Your task to perform on an android device: Go to Wikipedia Image 0: 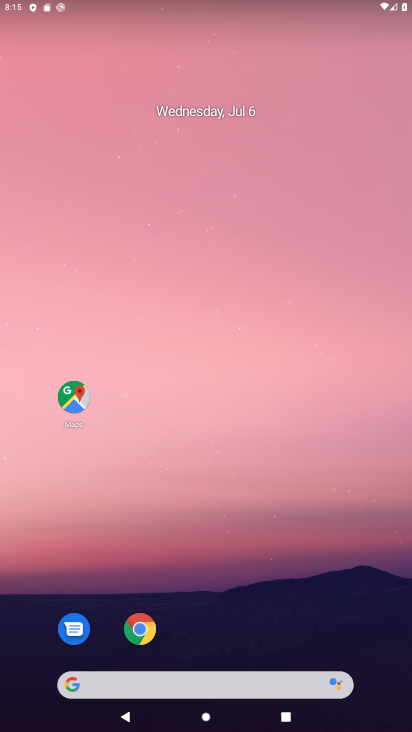
Step 0: click (136, 634)
Your task to perform on an android device: Go to Wikipedia Image 1: 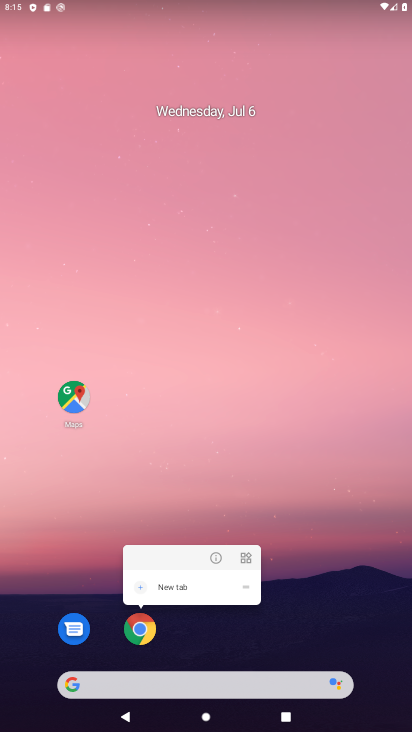
Step 1: click (141, 624)
Your task to perform on an android device: Go to Wikipedia Image 2: 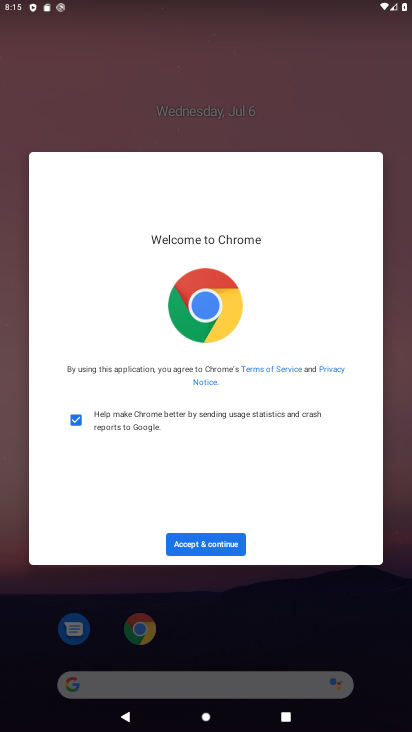
Step 2: click (233, 539)
Your task to perform on an android device: Go to Wikipedia Image 3: 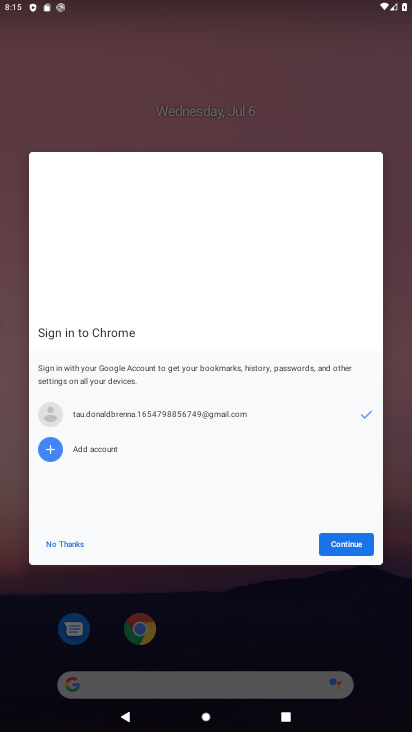
Step 3: click (54, 537)
Your task to perform on an android device: Go to Wikipedia Image 4: 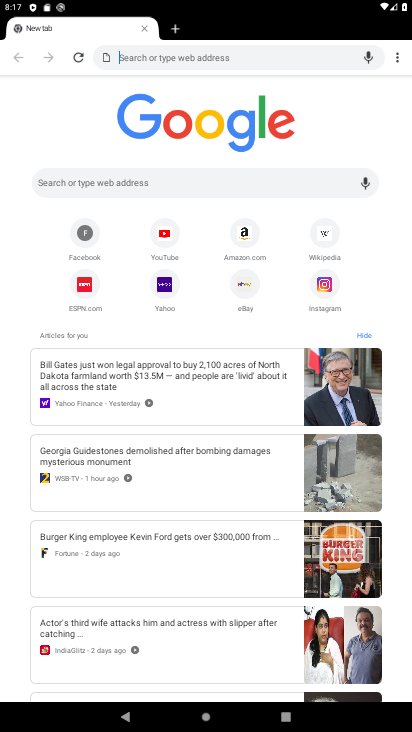
Step 4: click (320, 230)
Your task to perform on an android device: Go to Wikipedia Image 5: 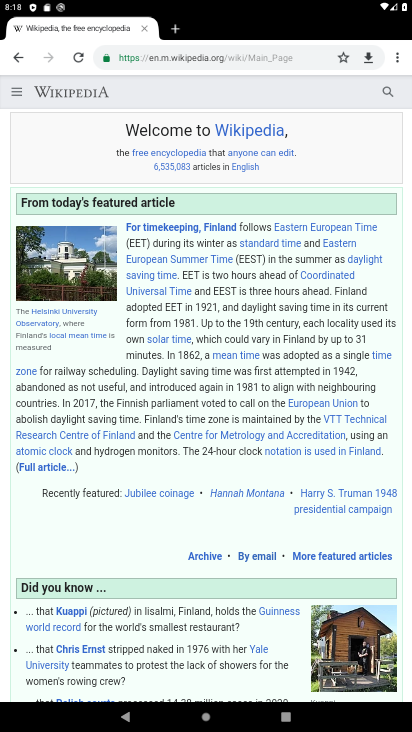
Step 5: task complete